Your task to perform on an android device: change timer sound Image 0: 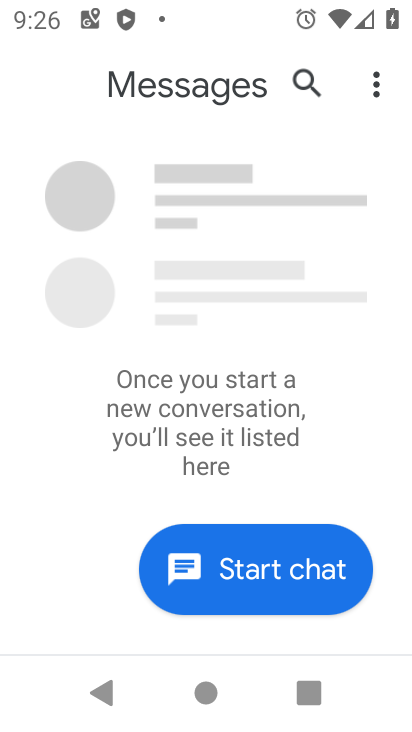
Step 0: press back button
Your task to perform on an android device: change timer sound Image 1: 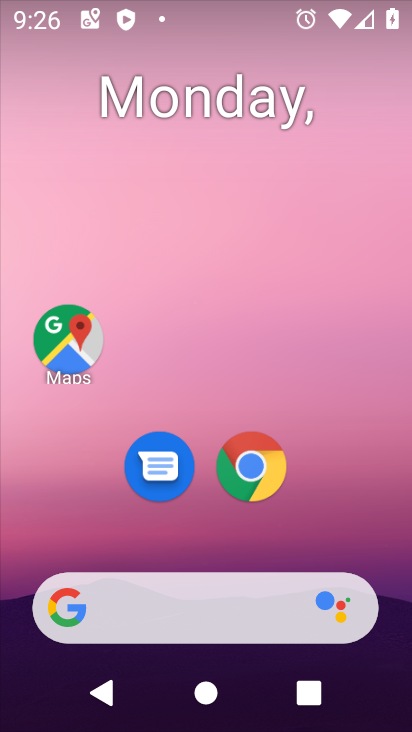
Step 1: drag from (361, 563) to (181, 0)
Your task to perform on an android device: change timer sound Image 2: 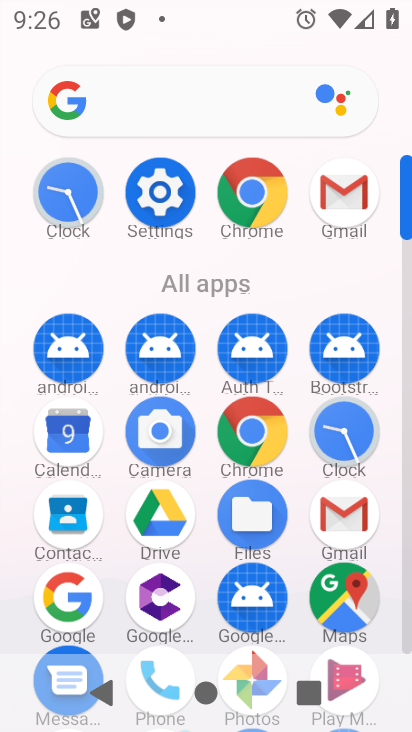
Step 2: click (346, 439)
Your task to perform on an android device: change timer sound Image 3: 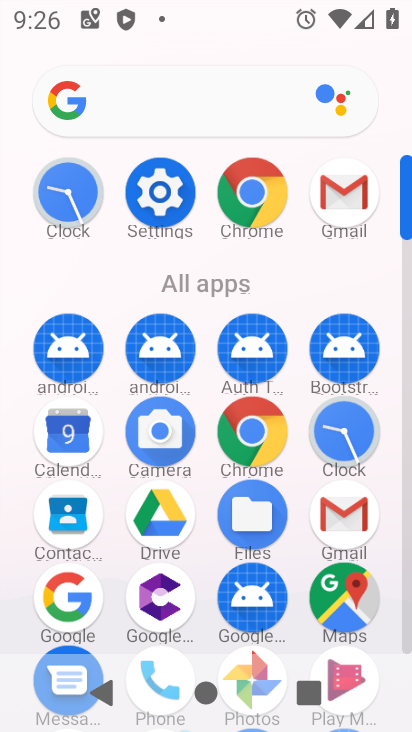
Step 3: click (346, 439)
Your task to perform on an android device: change timer sound Image 4: 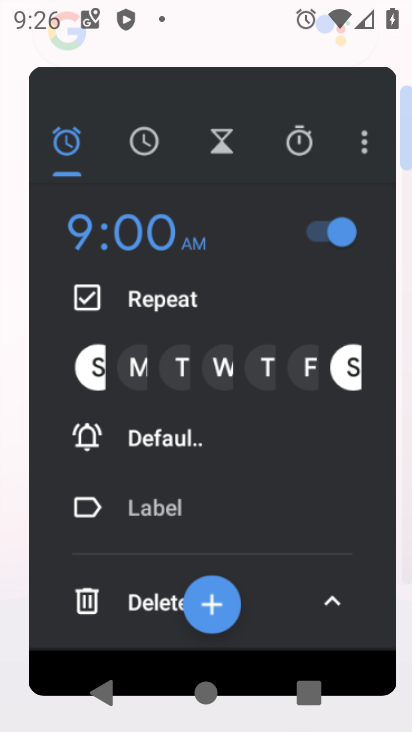
Step 4: click (346, 439)
Your task to perform on an android device: change timer sound Image 5: 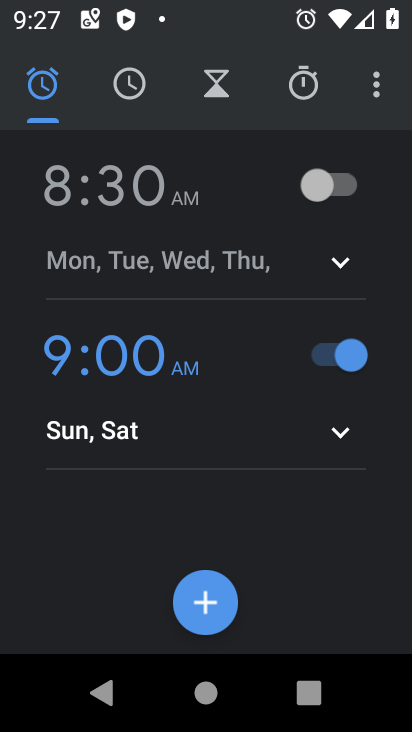
Step 5: click (374, 90)
Your task to perform on an android device: change timer sound Image 6: 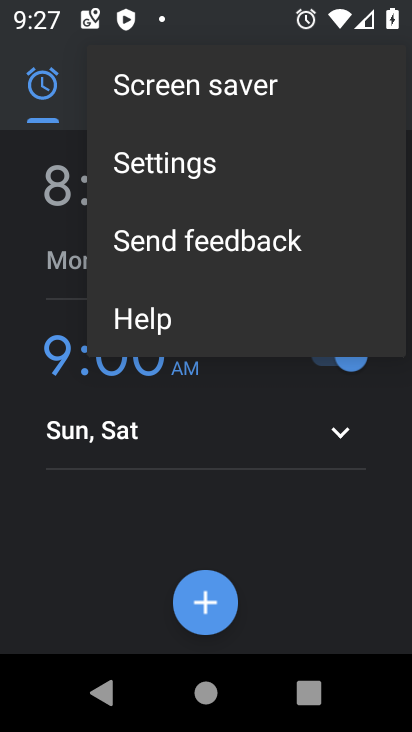
Step 6: click (185, 166)
Your task to perform on an android device: change timer sound Image 7: 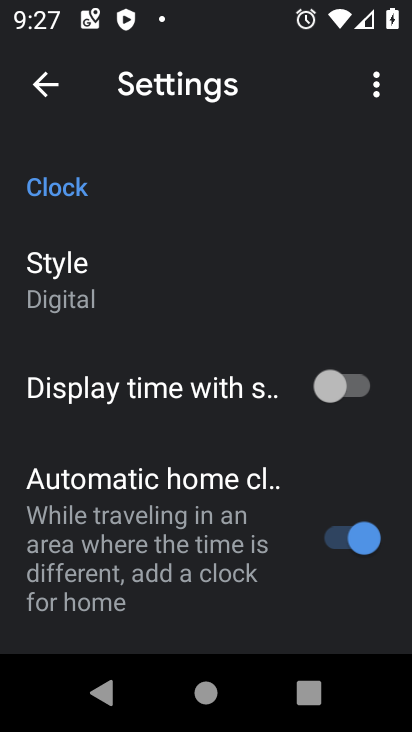
Step 7: drag from (285, 539) to (177, 197)
Your task to perform on an android device: change timer sound Image 8: 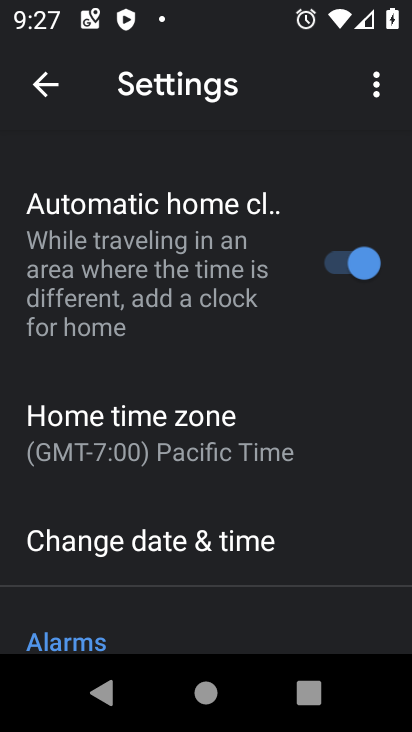
Step 8: drag from (258, 554) to (186, 98)
Your task to perform on an android device: change timer sound Image 9: 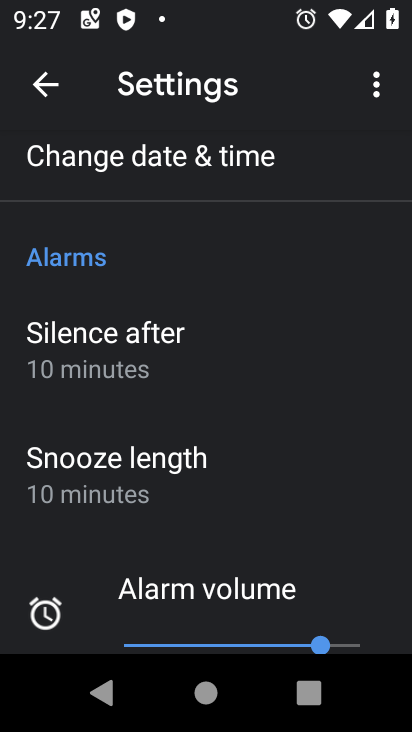
Step 9: drag from (113, 499) to (95, 88)
Your task to perform on an android device: change timer sound Image 10: 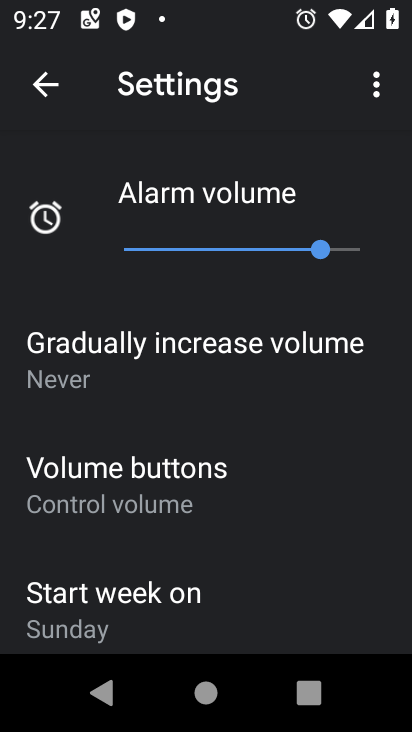
Step 10: drag from (172, 589) to (179, 201)
Your task to perform on an android device: change timer sound Image 11: 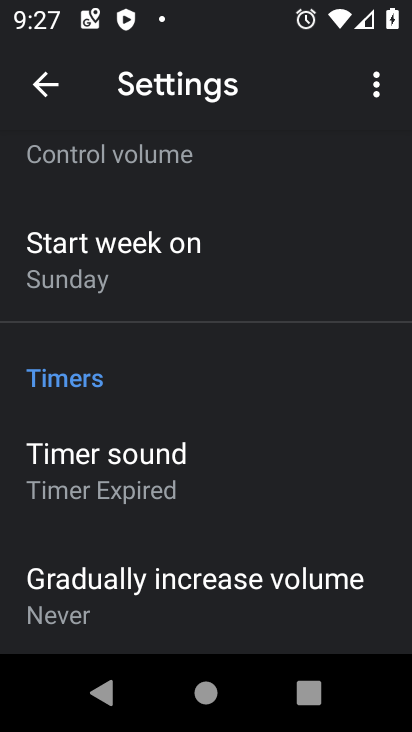
Step 11: click (101, 492)
Your task to perform on an android device: change timer sound Image 12: 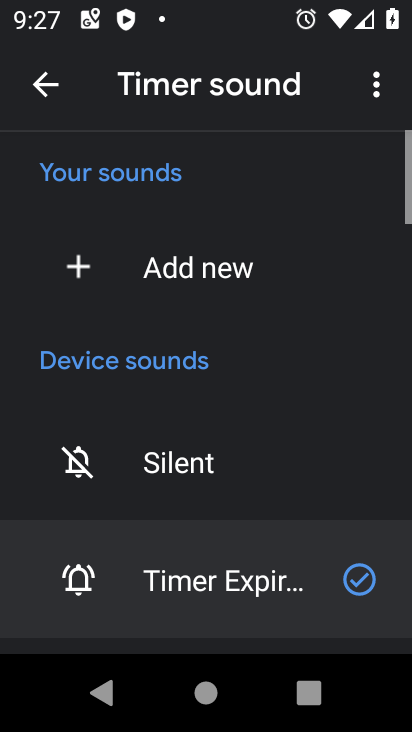
Step 12: drag from (201, 557) to (180, 165)
Your task to perform on an android device: change timer sound Image 13: 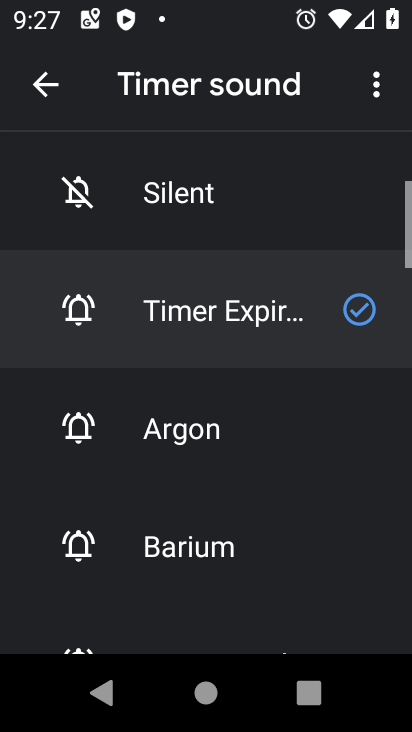
Step 13: drag from (275, 439) to (278, 81)
Your task to perform on an android device: change timer sound Image 14: 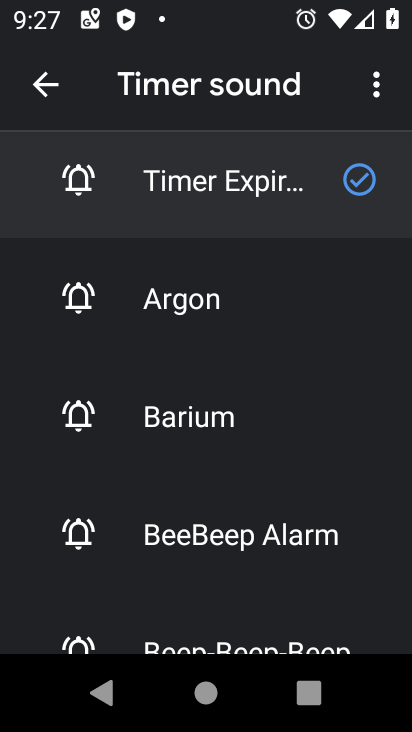
Step 14: click (70, 406)
Your task to perform on an android device: change timer sound Image 15: 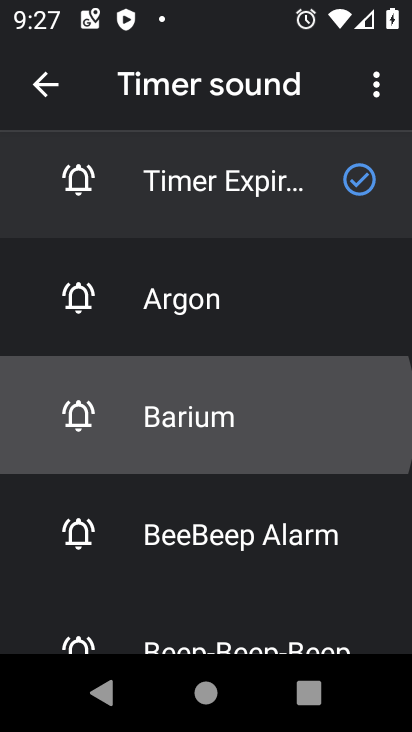
Step 15: click (70, 406)
Your task to perform on an android device: change timer sound Image 16: 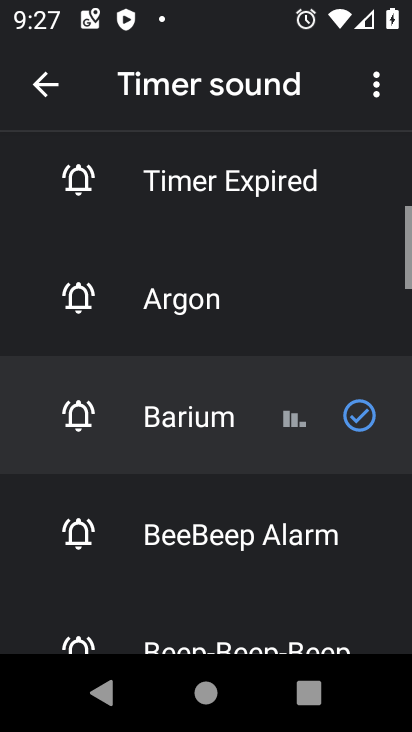
Step 16: click (70, 406)
Your task to perform on an android device: change timer sound Image 17: 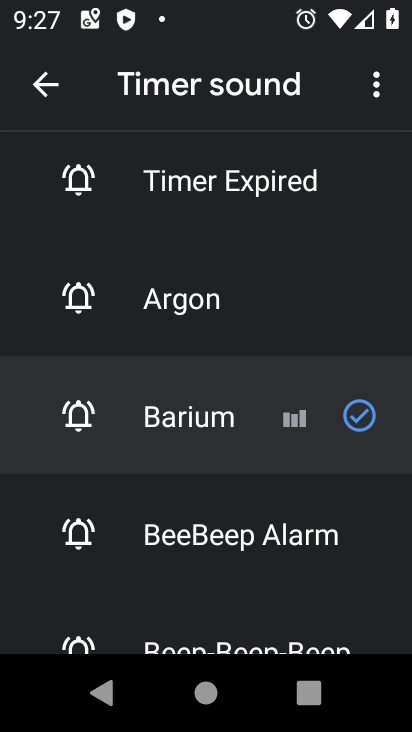
Step 17: task complete